Your task to perform on an android device: see sites visited before in the chrome app Image 0: 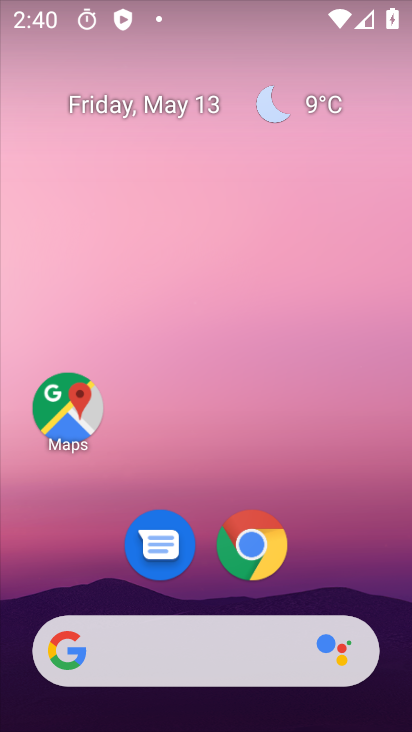
Step 0: click (280, 554)
Your task to perform on an android device: see sites visited before in the chrome app Image 1: 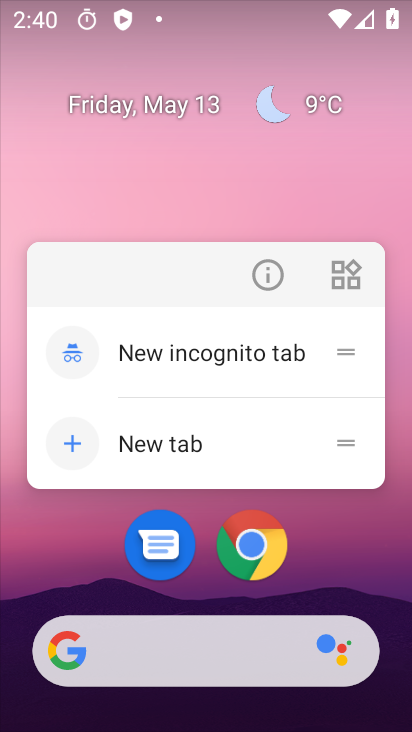
Step 1: click (238, 538)
Your task to perform on an android device: see sites visited before in the chrome app Image 2: 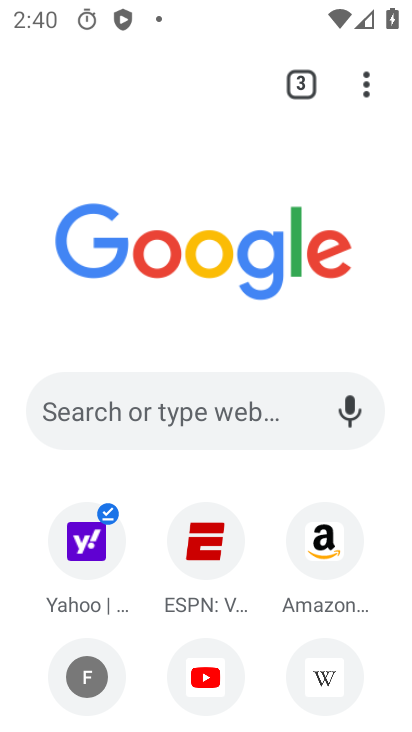
Step 2: drag from (366, 84) to (143, 597)
Your task to perform on an android device: see sites visited before in the chrome app Image 3: 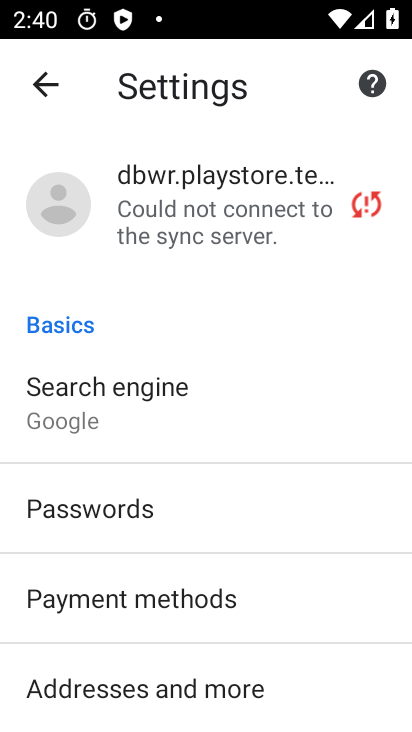
Step 3: drag from (282, 567) to (306, 347)
Your task to perform on an android device: see sites visited before in the chrome app Image 4: 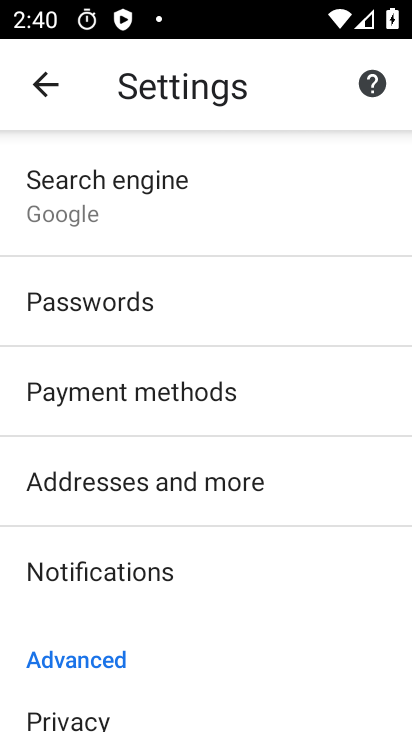
Step 4: drag from (213, 666) to (289, 351)
Your task to perform on an android device: see sites visited before in the chrome app Image 5: 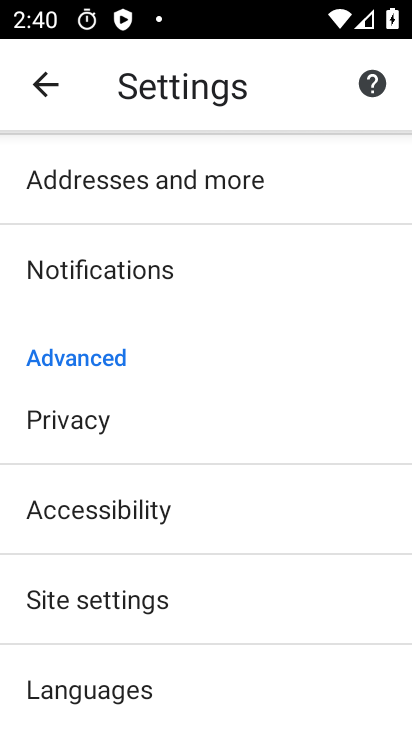
Step 5: click (103, 603)
Your task to perform on an android device: see sites visited before in the chrome app Image 6: 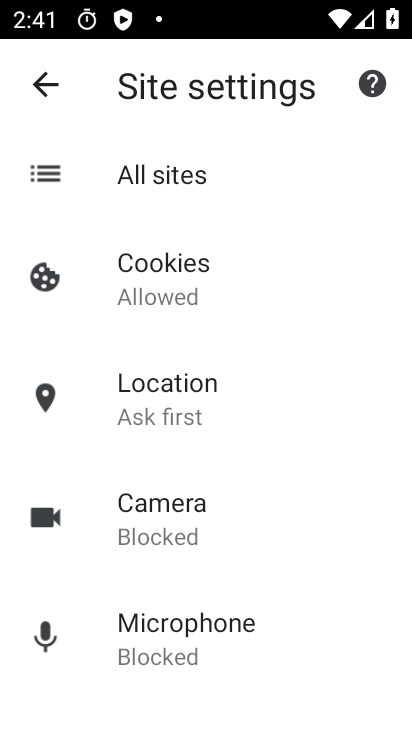
Step 6: click (173, 177)
Your task to perform on an android device: see sites visited before in the chrome app Image 7: 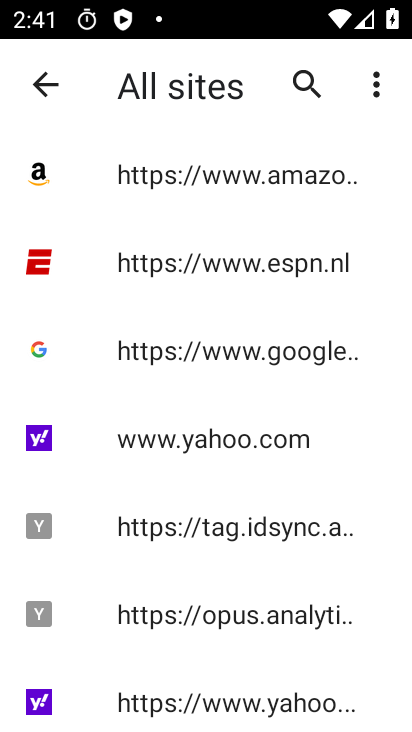
Step 7: task complete